Your task to perform on an android device: read, delete, or share a saved page in the chrome app Image 0: 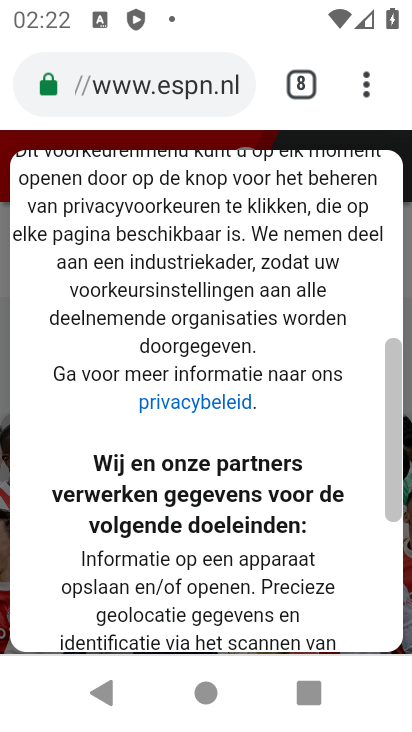
Step 0: click (347, 75)
Your task to perform on an android device: read, delete, or share a saved page in the chrome app Image 1: 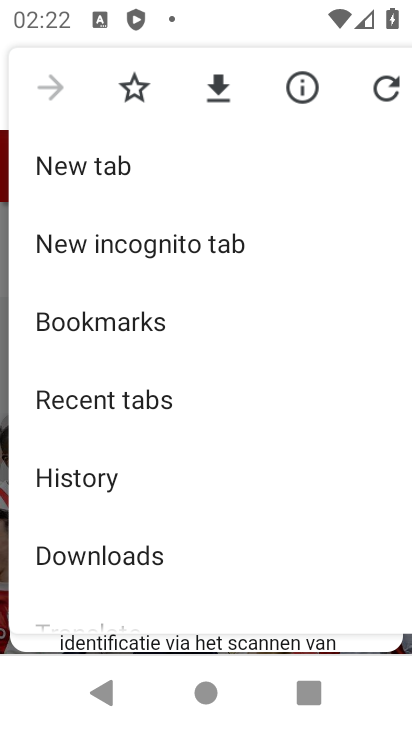
Step 1: click (117, 555)
Your task to perform on an android device: read, delete, or share a saved page in the chrome app Image 2: 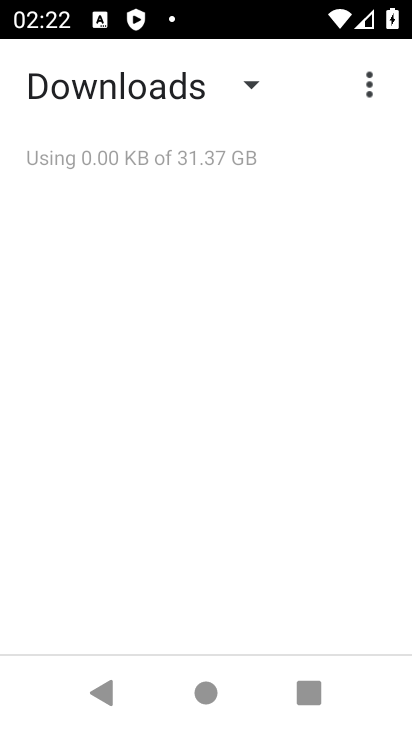
Step 2: click (236, 82)
Your task to perform on an android device: read, delete, or share a saved page in the chrome app Image 3: 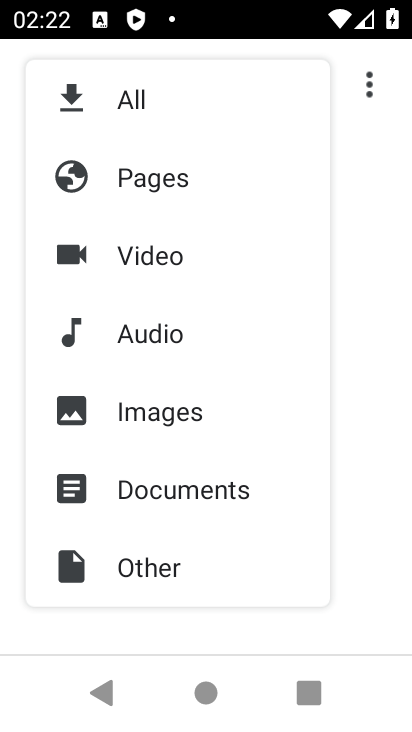
Step 3: click (142, 189)
Your task to perform on an android device: read, delete, or share a saved page in the chrome app Image 4: 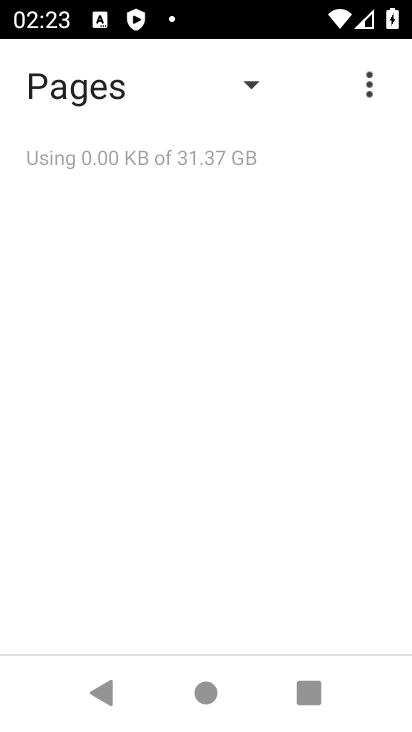
Step 4: task complete